Your task to perform on an android device: Show me productivity apps on the Play Store Image 0: 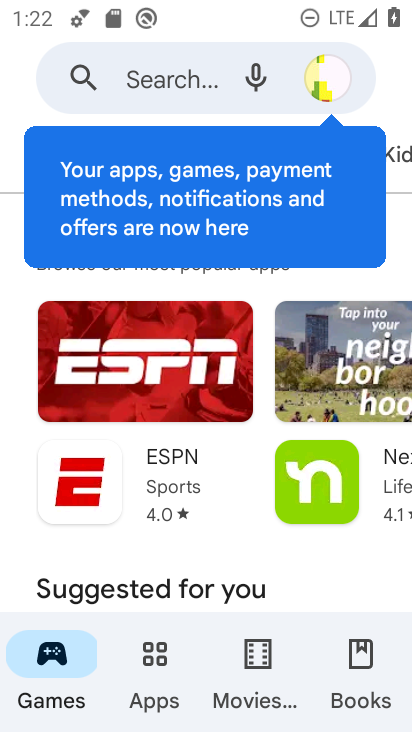
Step 0: press home button
Your task to perform on an android device: Show me productivity apps on the Play Store Image 1: 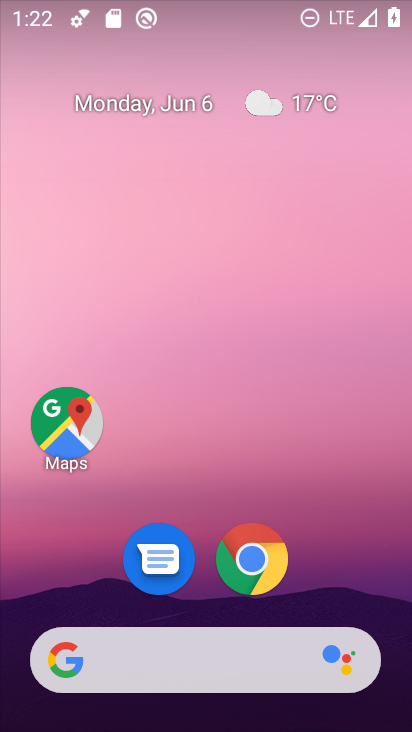
Step 1: drag from (235, 478) to (286, 17)
Your task to perform on an android device: Show me productivity apps on the Play Store Image 2: 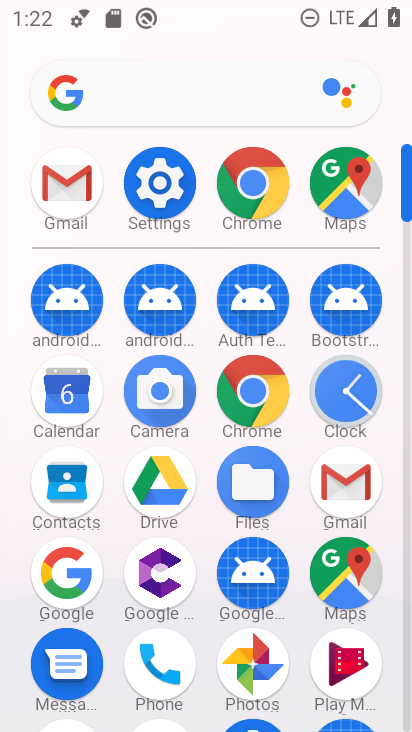
Step 2: drag from (174, 427) to (225, 99)
Your task to perform on an android device: Show me productivity apps on the Play Store Image 3: 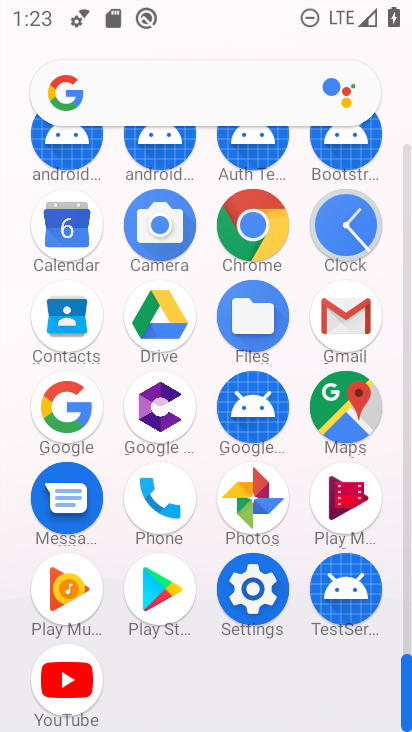
Step 3: click (166, 605)
Your task to perform on an android device: Show me productivity apps on the Play Store Image 4: 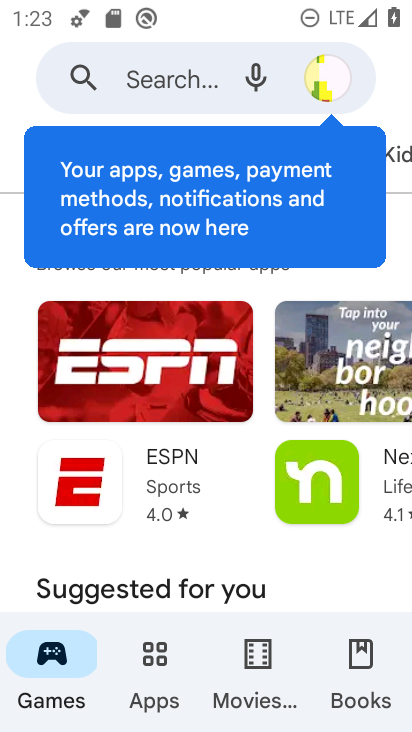
Step 4: click (184, 71)
Your task to perform on an android device: Show me productivity apps on the Play Store Image 5: 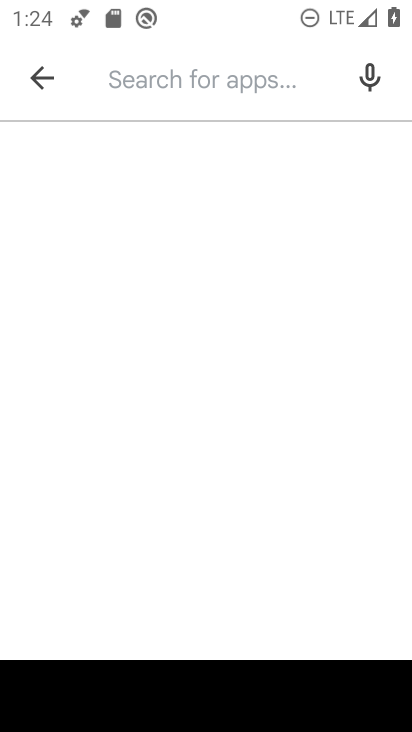
Step 5: type "productivity aaps"
Your task to perform on an android device: Show me productivity apps on the Play Store Image 6: 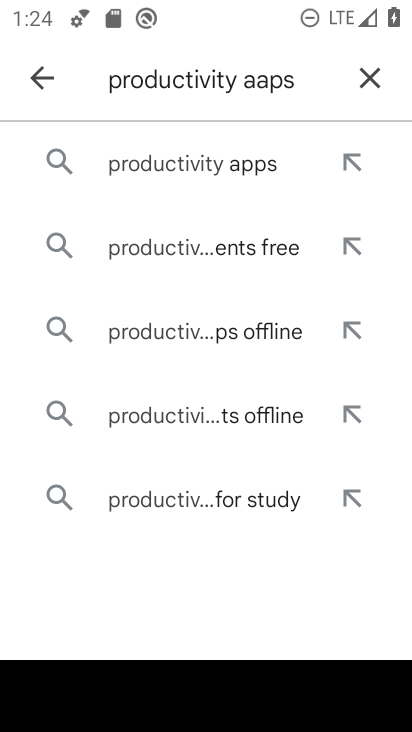
Step 6: click (228, 169)
Your task to perform on an android device: Show me productivity apps on the Play Store Image 7: 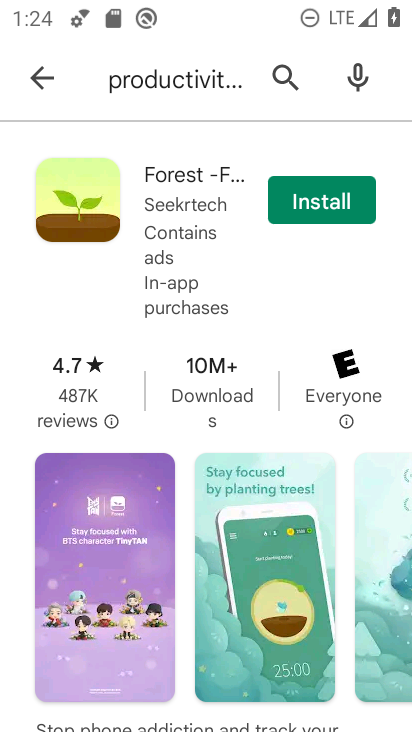
Step 7: task complete